Your task to perform on an android device: See recent photos Image 0: 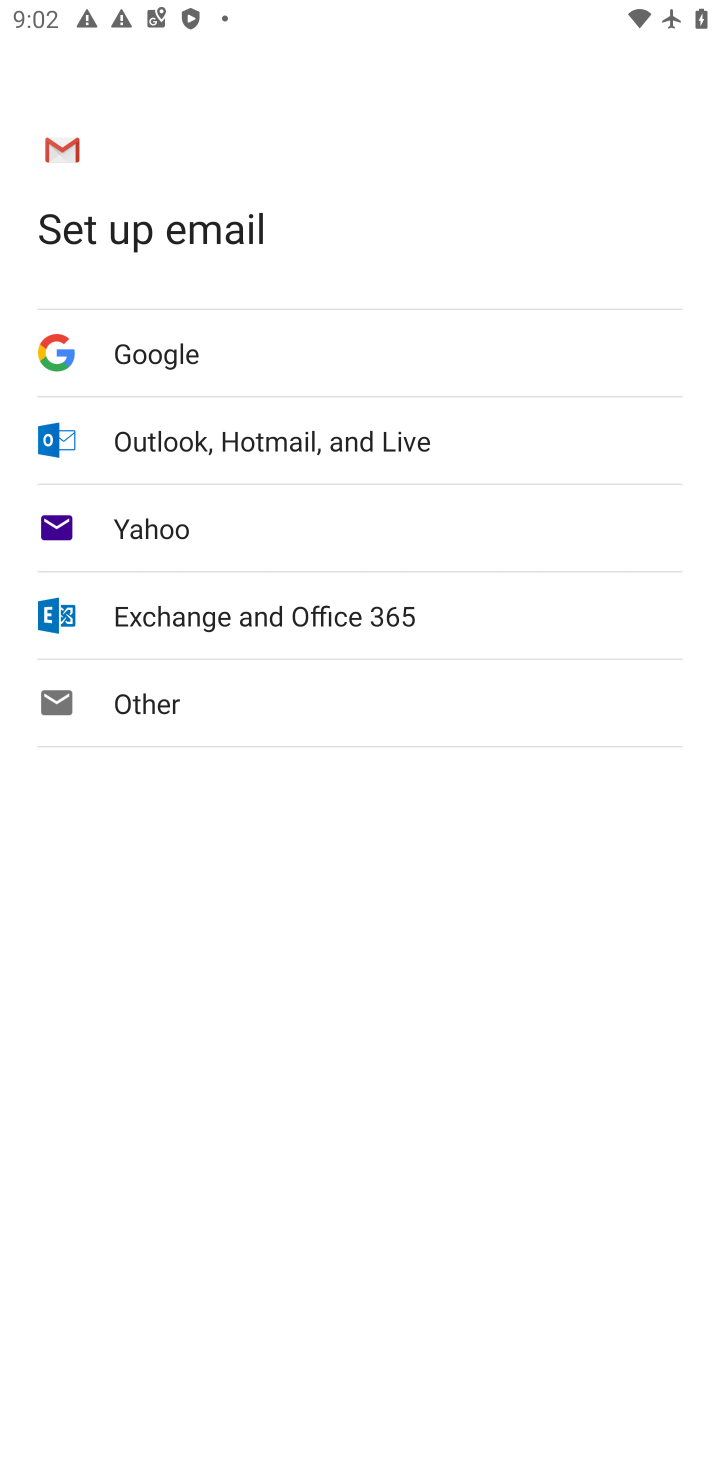
Step 0: press home button
Your task to perform on an android device: See recent photos Image 1: 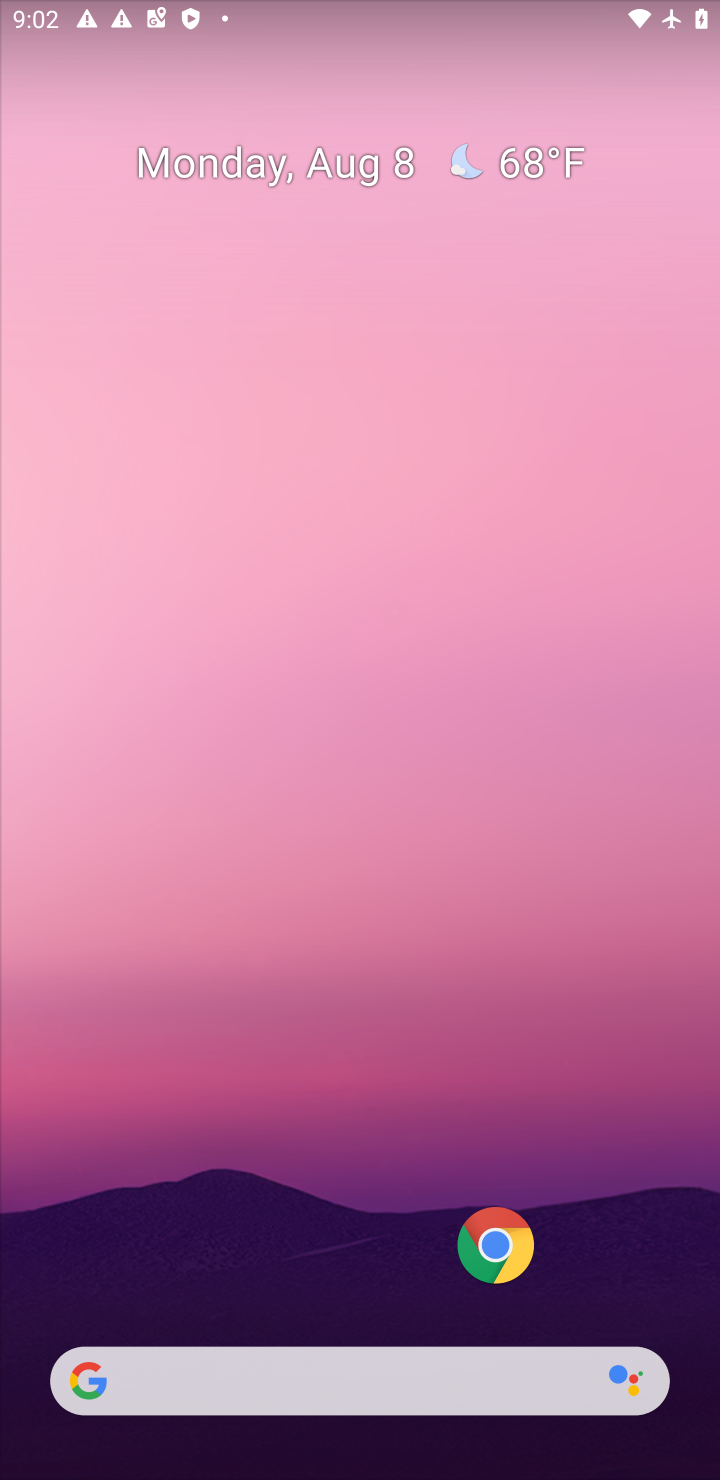
Step 1: drag from (280, 1288) to (673, 988)
Your task to perform on an android device: See recent photos Image 2: 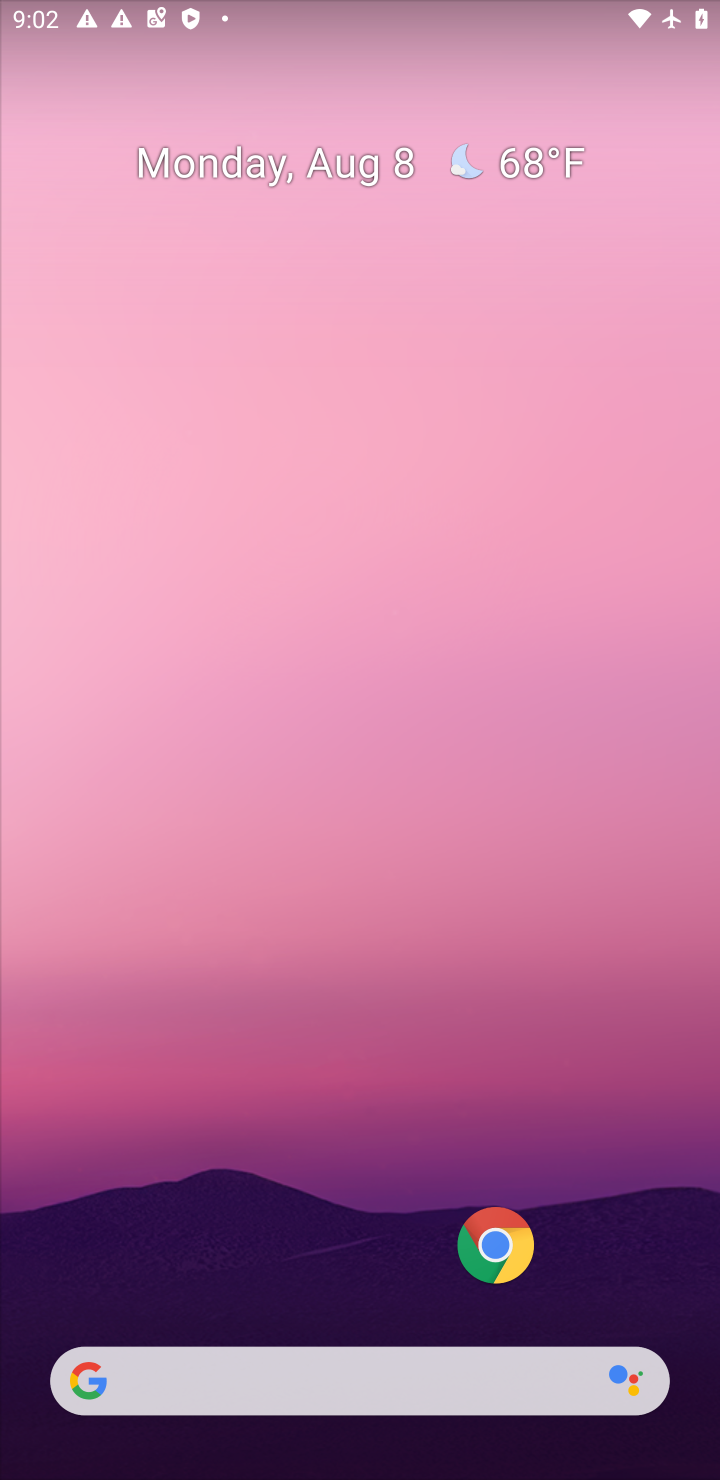
Step 2: drag from (296, 1137) to (143, 24)
Your task to perform on an android device: See recent photos Image 3: 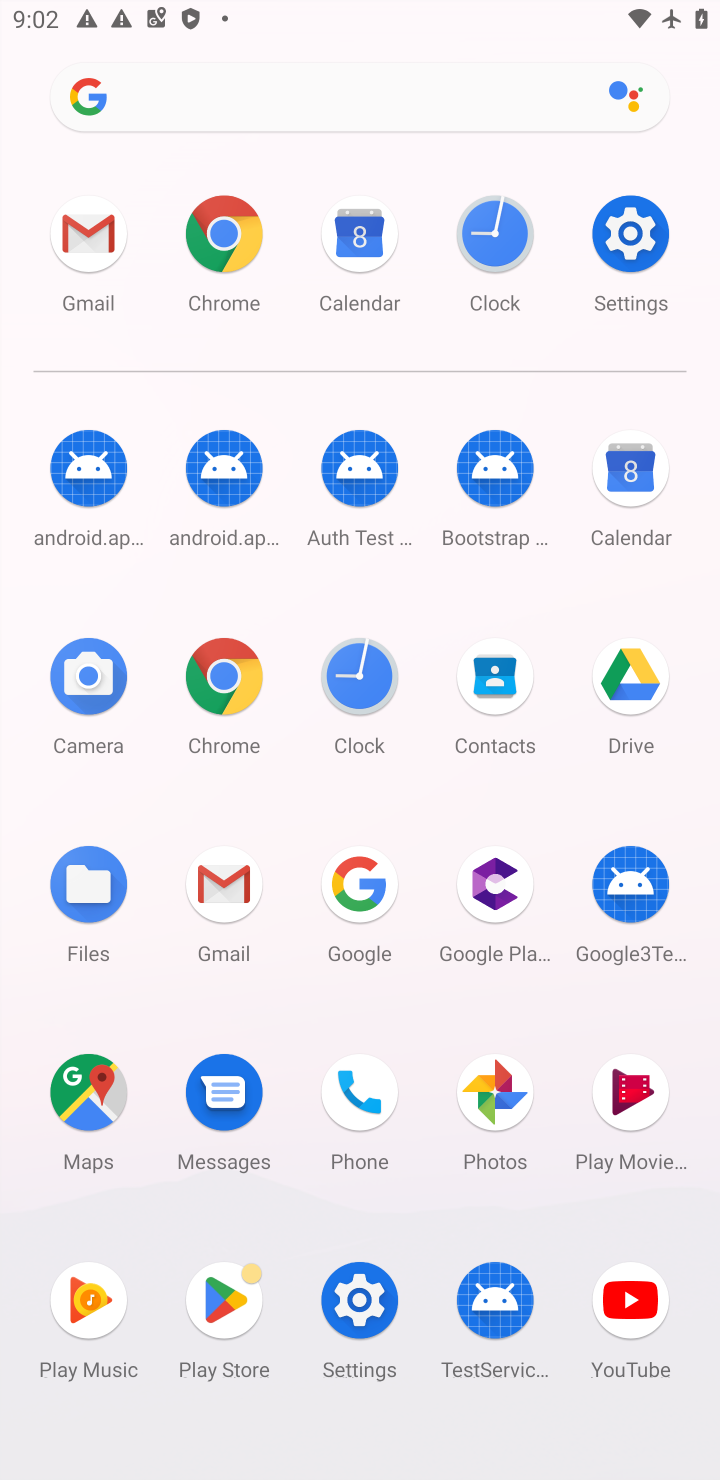
Step 3: click (500, 1124)
Your task to perform on an android device: See recent photos Image 4: 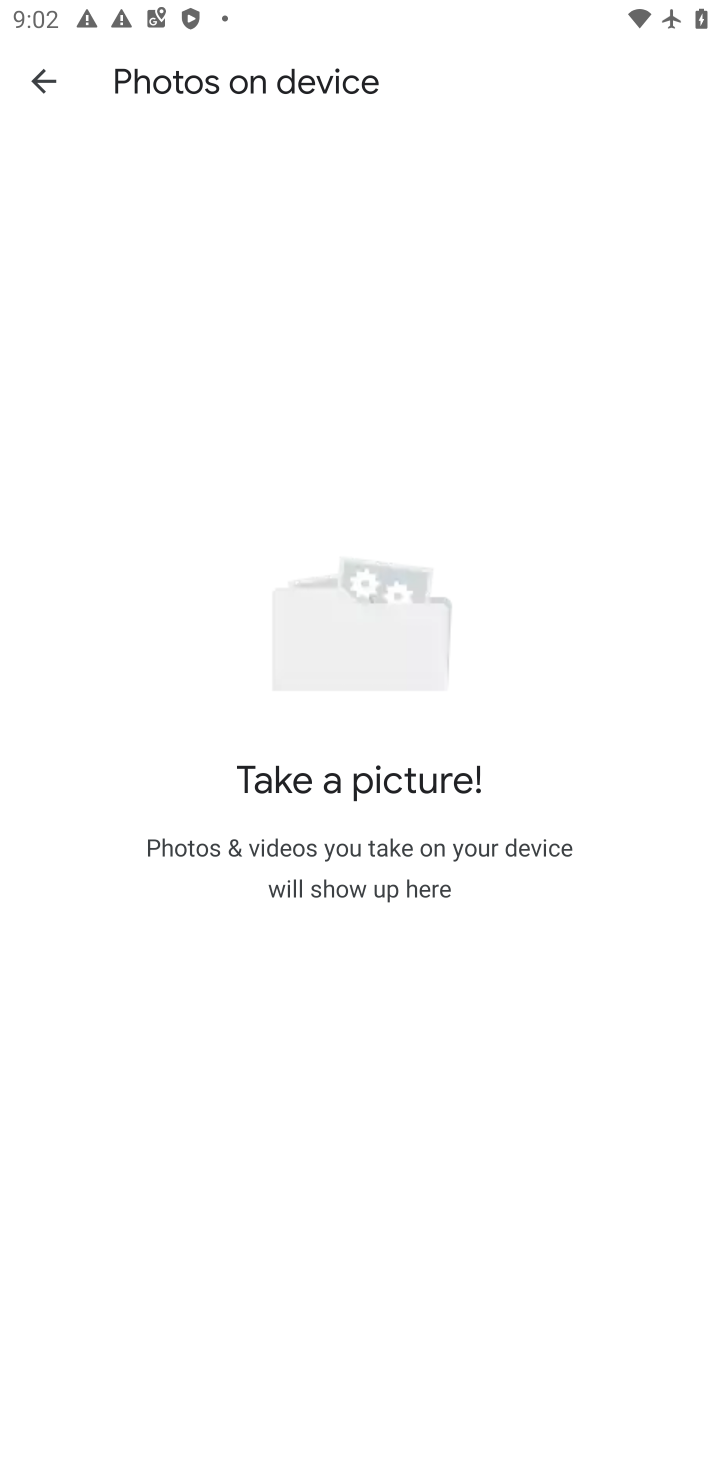
Step 4: click (23, 68)
Your task to perform on an android device: See recent photos Image 5: 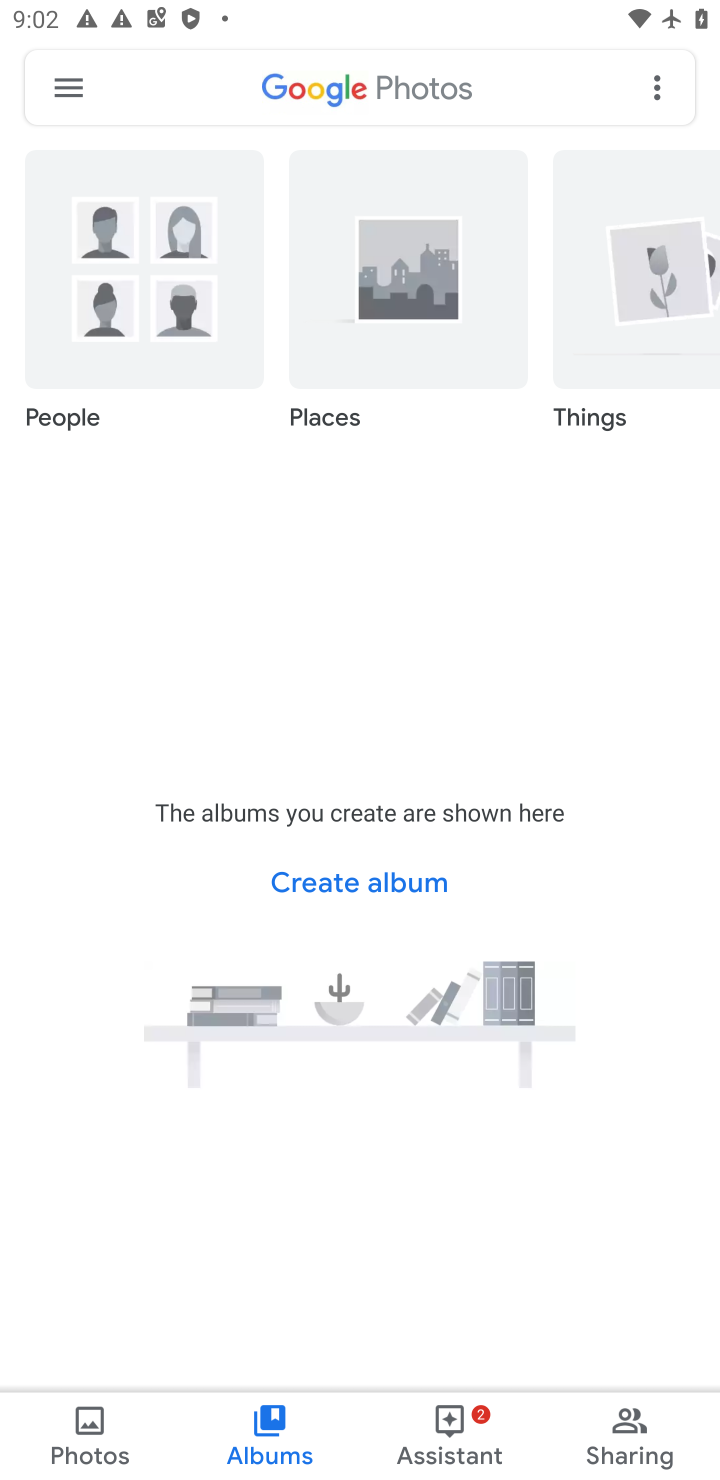
Step 5: click (101, 1429)
Your task to perform on an android device: See recent photos Image 6: 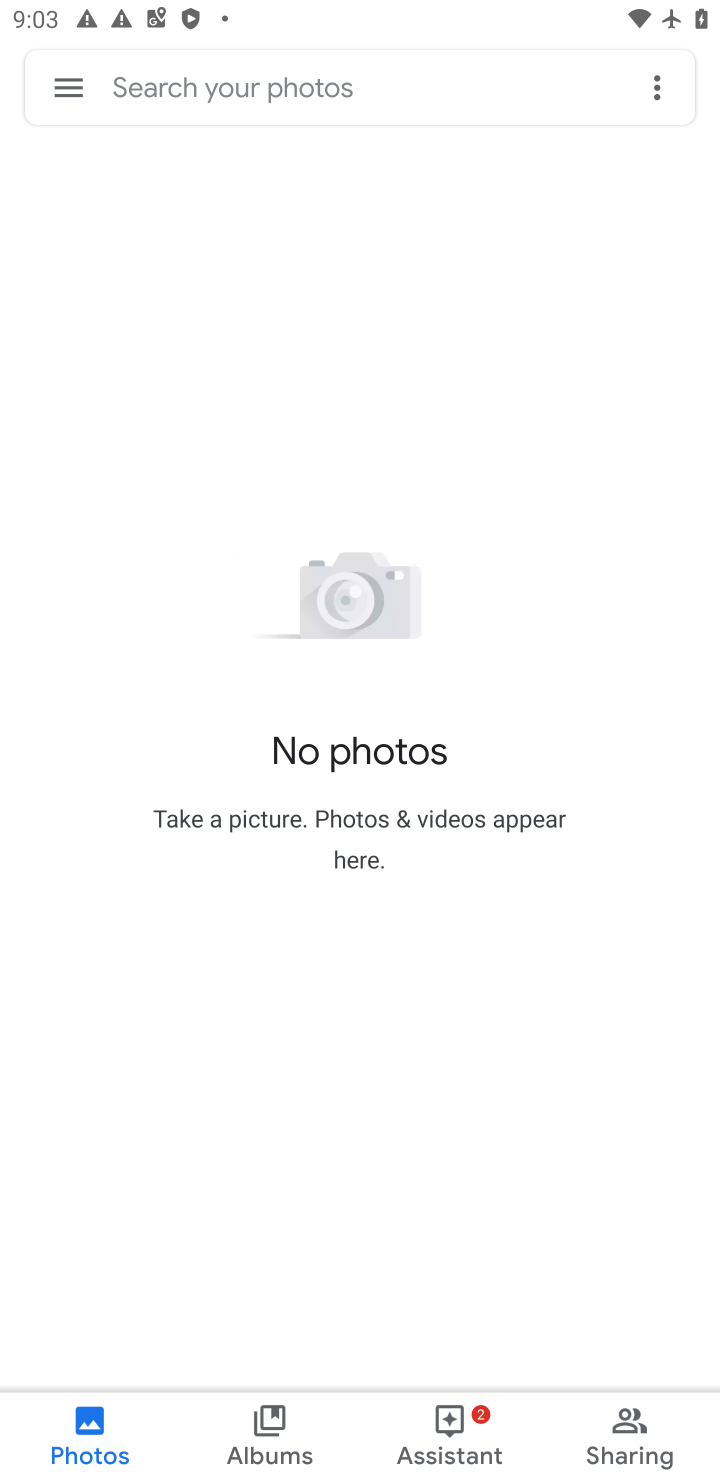
Step 6: task complete